Your task to perform on an android device: Open location settings Image 0: 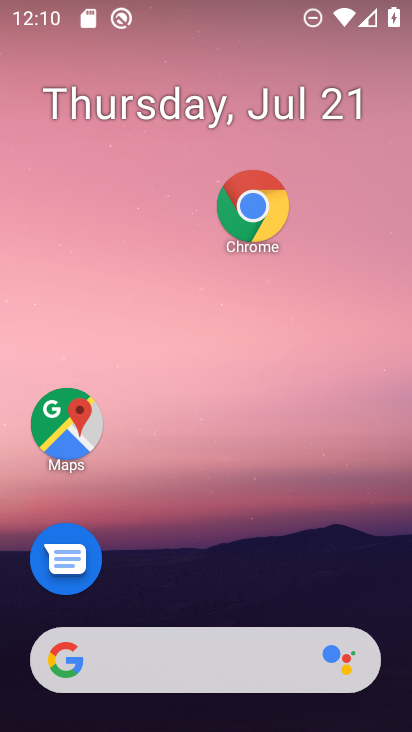
Step 0: drag from (193, 524) to (210, 143)
Your task to perform on an android device: Open location settings Image 1: 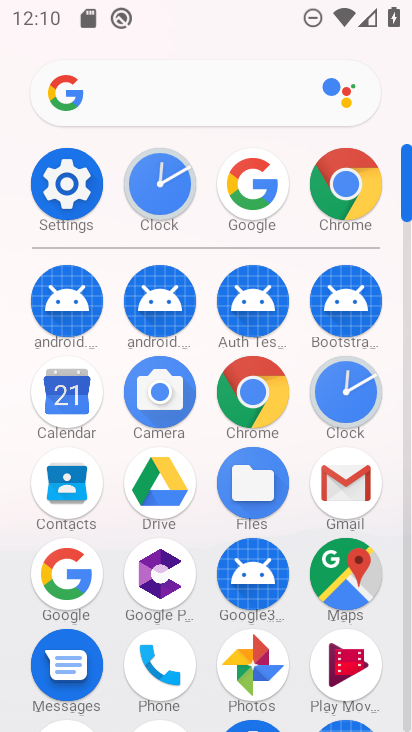
Step 1: drag from (204, 513) to (249, 307)
Your task to perform on an android device: Open location settings Image 2: 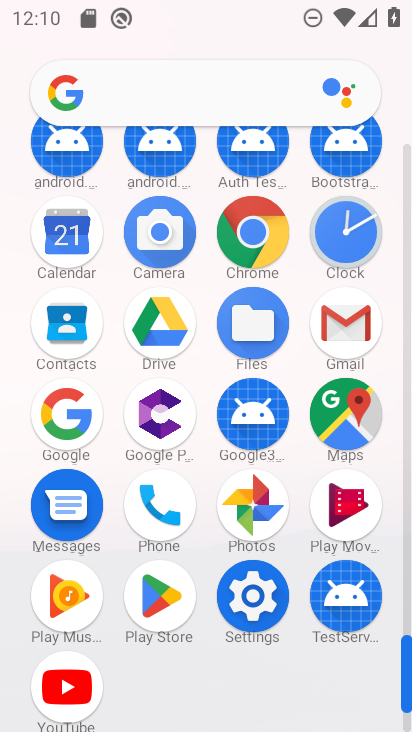
Step 2: click (251, 614)
Your task to perform on an android device: Open location settings Image 3: 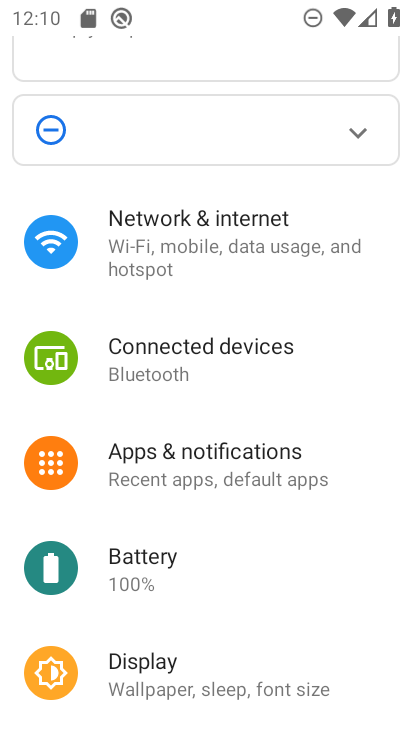
Step 3: drag from (195, 553) to (259, 259)
Your task to perform on an android device: Open location settings Image 4: 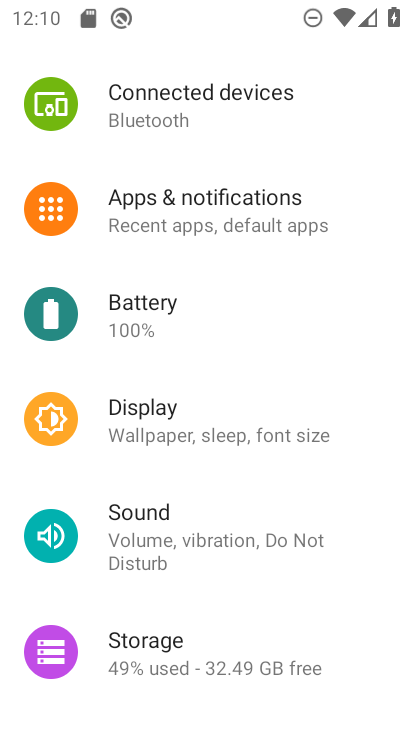
Step 4: drag from (197, 552) to (224, 345)
Your task to perform on an android device: Open location settings Image 5: 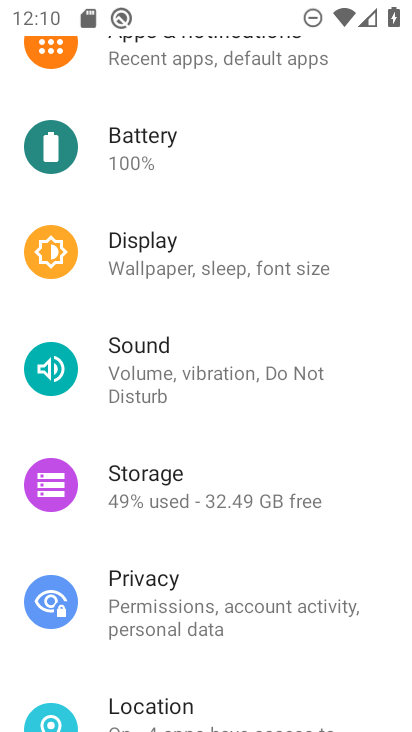
Step 5: drag from (214, 567) to (257, 382)
Your task to perform on an android device: Open location settings Image 6: 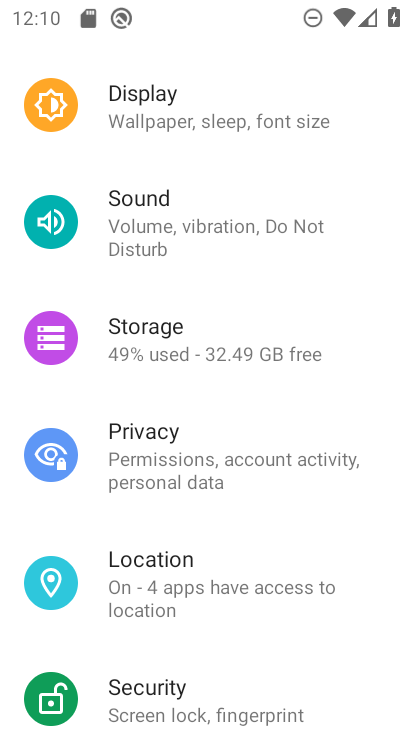
Step 6: click (183, 625)
Your task to perform on an android device: Open location settings Image 7: 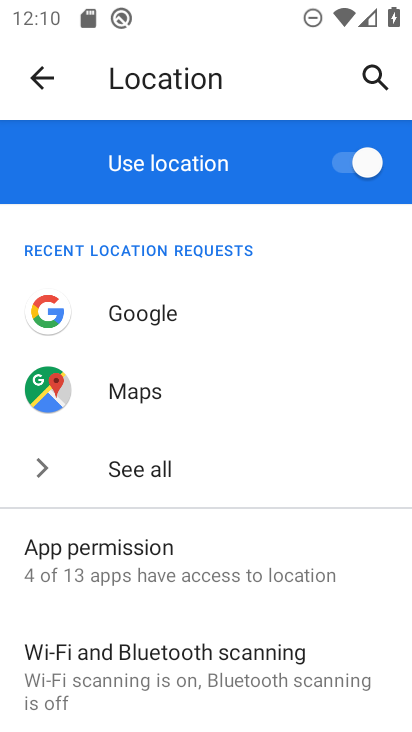
Step 7: task complete